Your task to perform on an android device: Go to Wikipedia Image 0: 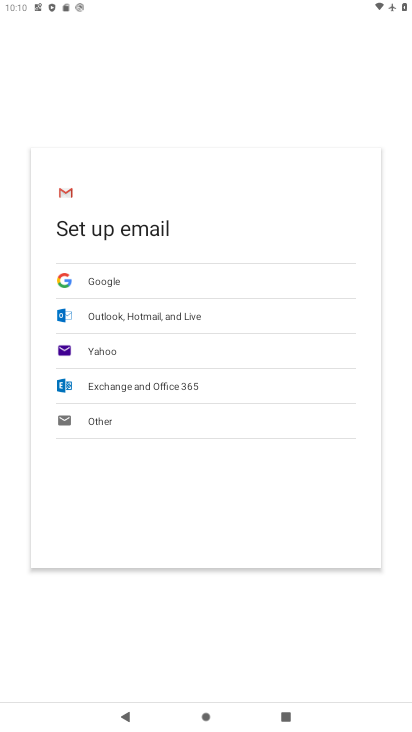
Step 0: press home button
Your task to perform on an android device: Go to Wikipedia Image 1: 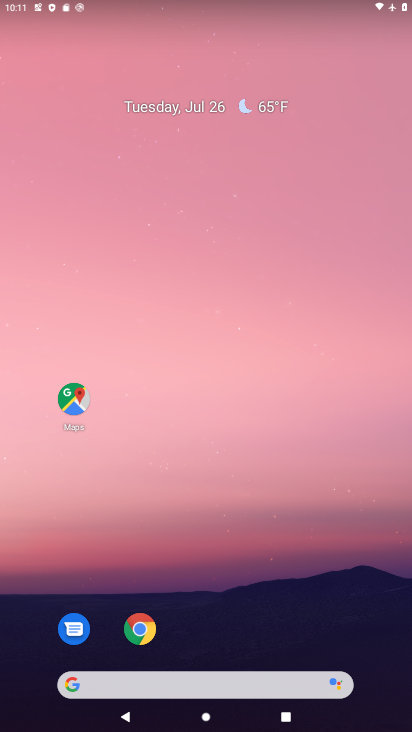
Step 1: drag from (282, 577) to (176, 82)
Your task to perform on an android device: Go to Wikipedia Image 2: 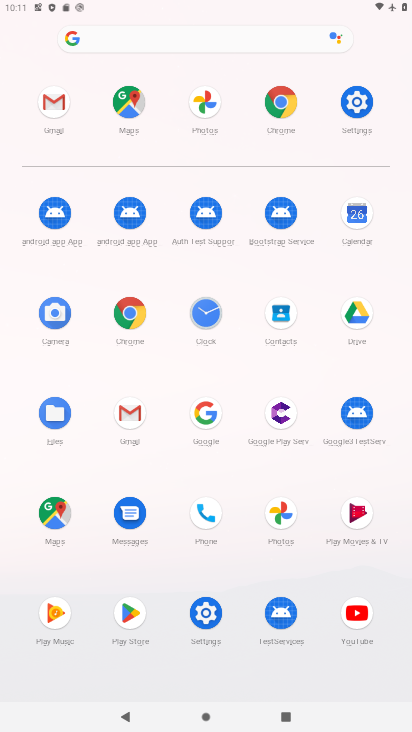
Step 2: click (280, 100)
Your task to perform on an android device: Go to Wikipedia Image 3: 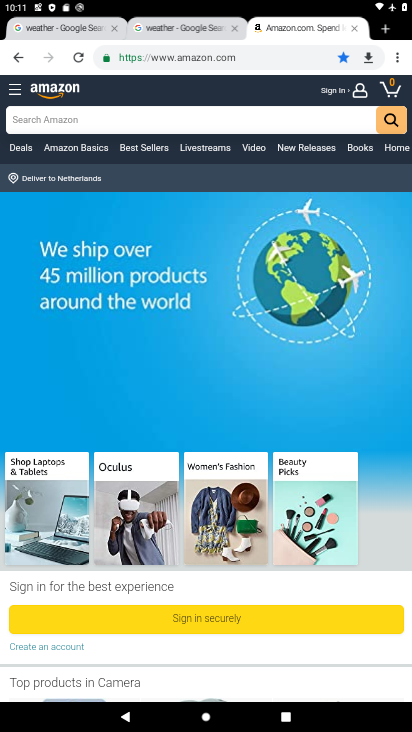
Step 3: click (246, 57)
Your task to perform on an android device: Go to Wikipedia Image 4: 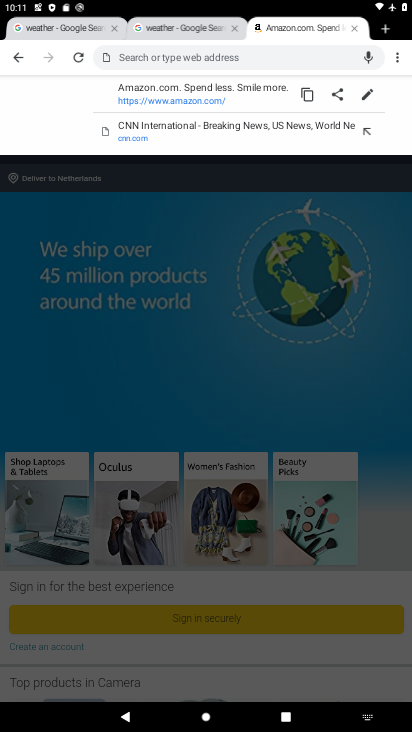
Step 4: type "wikipedia"
Your task to perform on an android device: Go to Wikipedia Image 5: 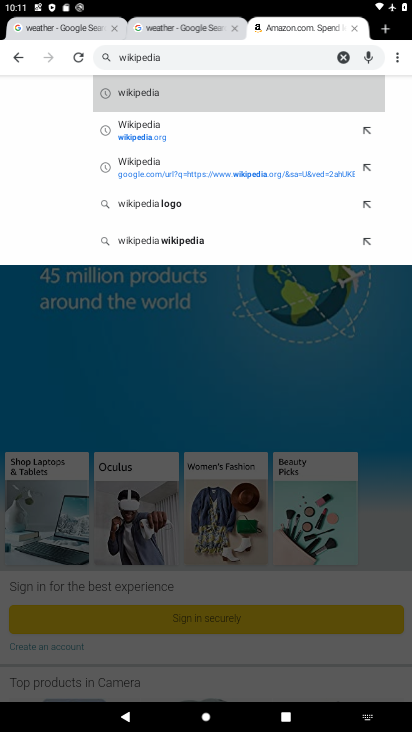
Step 5: click (134, 96)
Your task to perform on an android device: Go to Wikipedia Image 6: 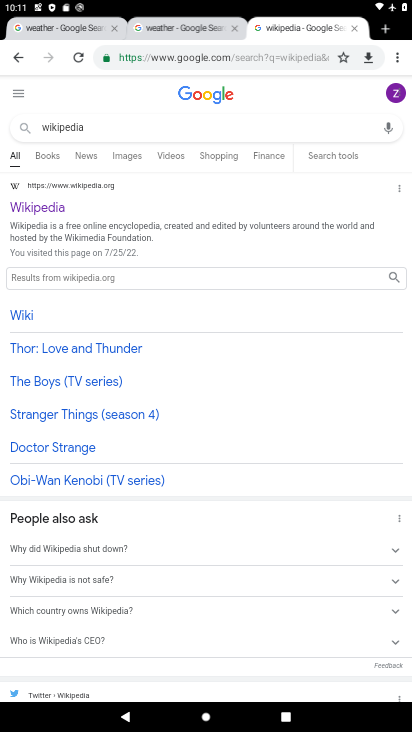
Step 6: click (19, 210)
Your task to perform on an android device: Go to Wikipedia Image 7: 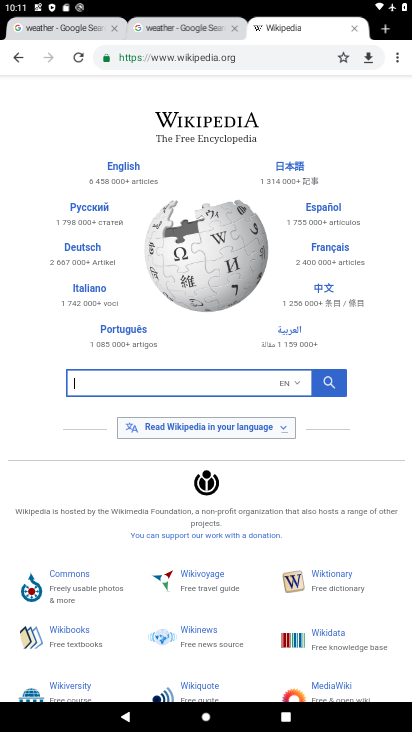
Step 7: task complete